Your task to perform on an android device: find snoozed emails in the gmail app Image 0: 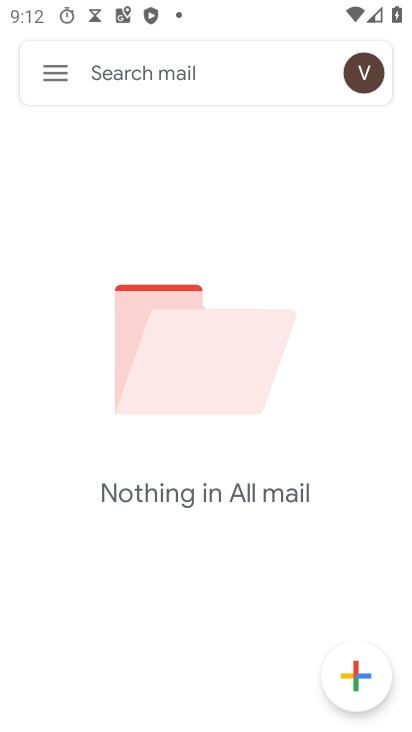
Step 0: press home button
Your task to perform on an android device: find snoozed emails in the gmail app Image 1: 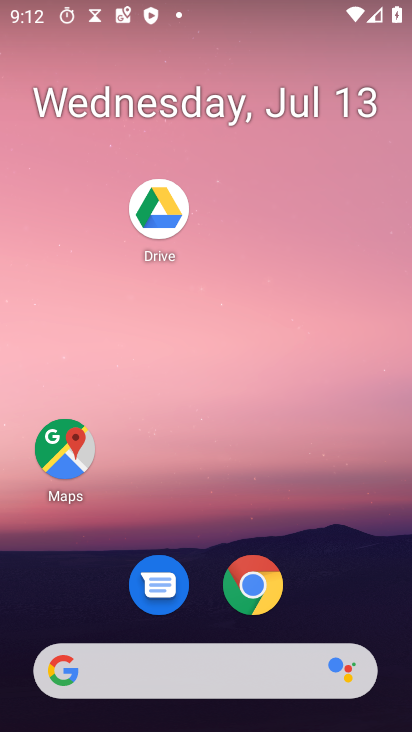
Step 1: drag from (223, 645) to (317, 186)
Your task to perform on an android device: find snoozed emails in the gmail app Image 2: 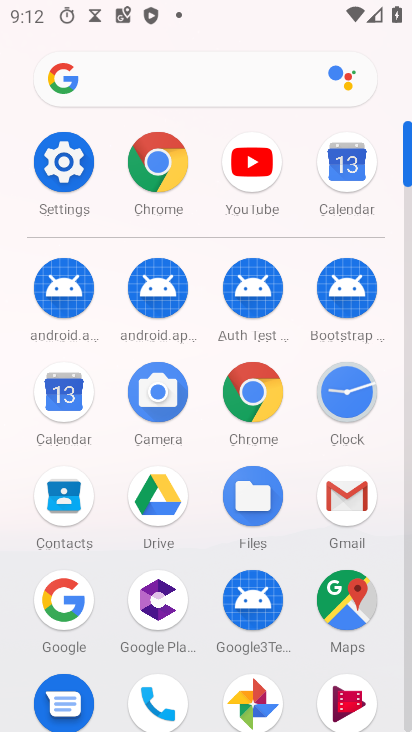
Step 2: click (339, 503)
Your task to perform on an android device: find snoozed emails in the gmail app Image 3: 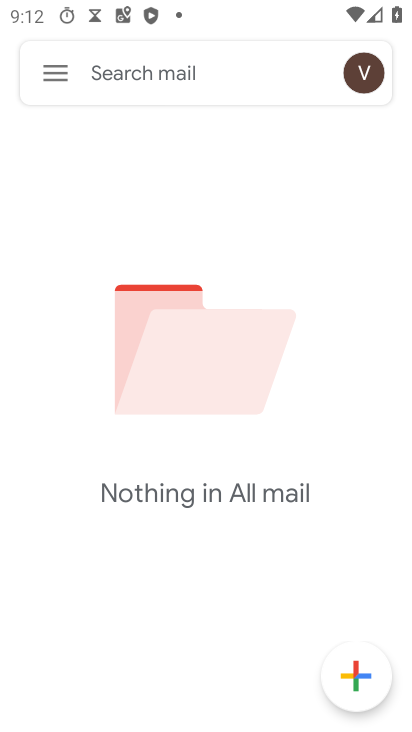
Step 3: click (53, 73)
Your task to perform on an android device: find snoozed emails in the gmail app Image 4: 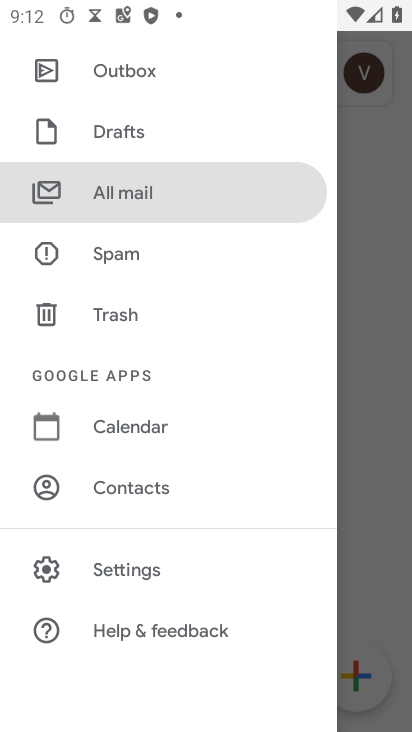
Step 4: drag from (216, 129) to (206, 631)
Your task to perform on an android device: find snoozed emails in the gmail app Image 5: 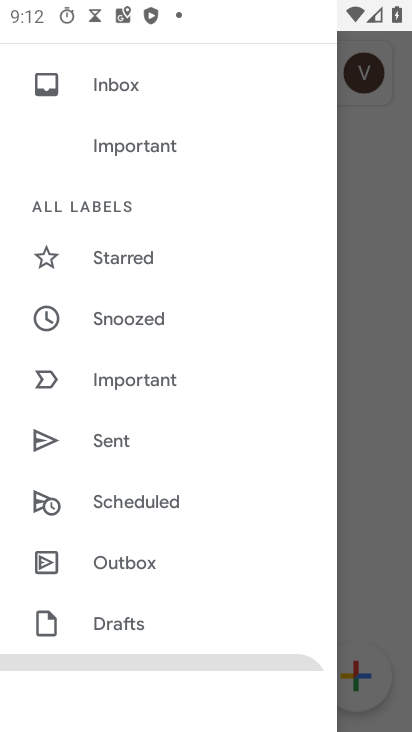
Step 5: click (135, 320)
Your task to perform on an android device: find snoozed emails in the gmail app Image 6: 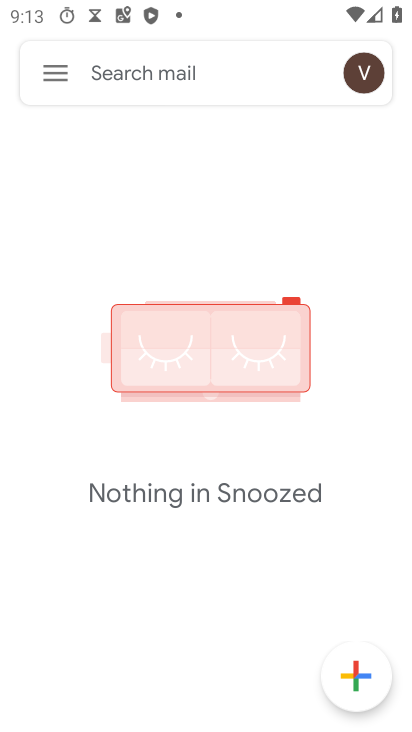
Step 6: task complete